Your task to perform on an android device: move a message to another label in the gmail app Image 0: 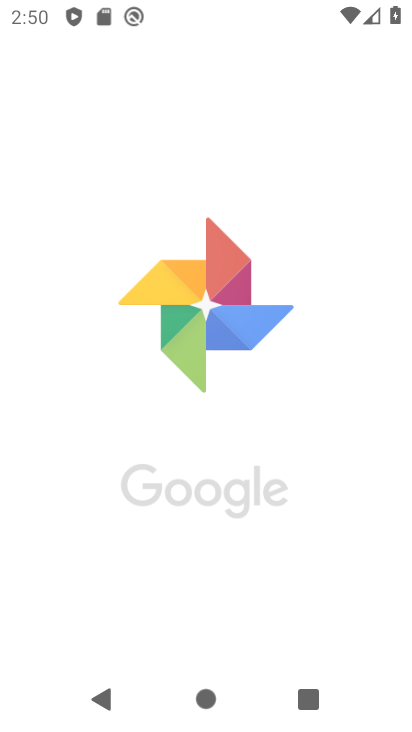
Step 0: drag from (336, 446) to (313, 2)
Your task to perform on an android device: move a message to another label in the gmail app Image 1: 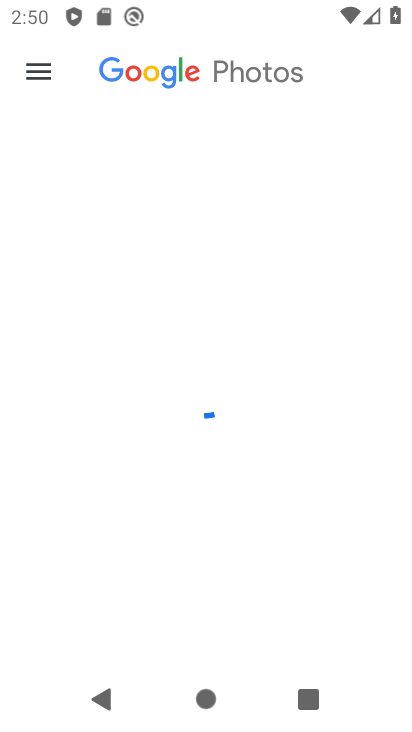
Step 1: press home button
Your task to perform on an android device: move a message to another label in the gmail app Image 2: 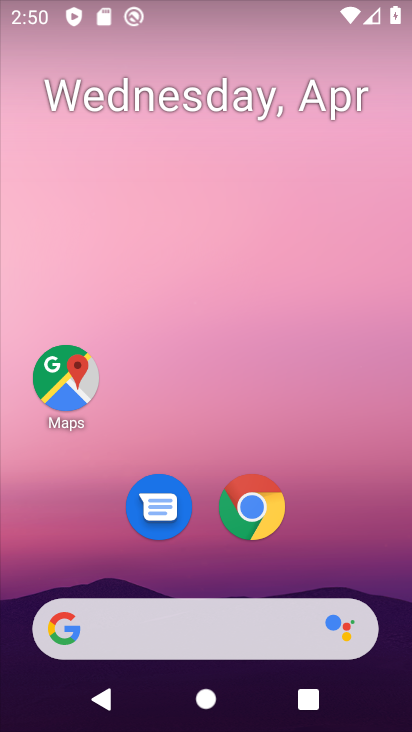
Step 2: drag from (343, 505) to (316, 80)
Your task to perform on an android device: move a message to another label in the gmail app Image 3: 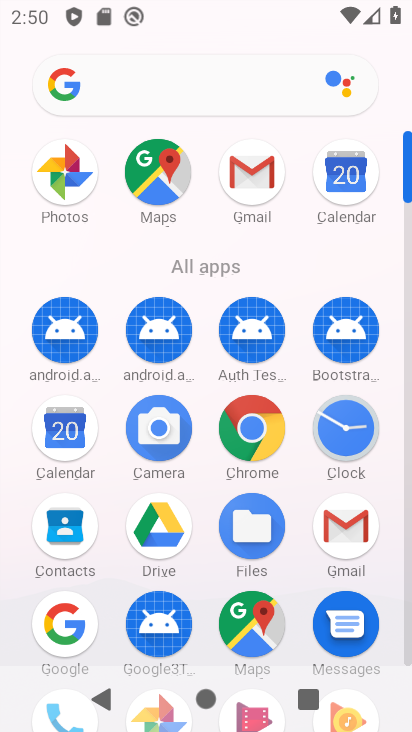
Step 3: click (248, 172)
Your task to perform on an android device: move a message to another label in the gmail app Image 4: 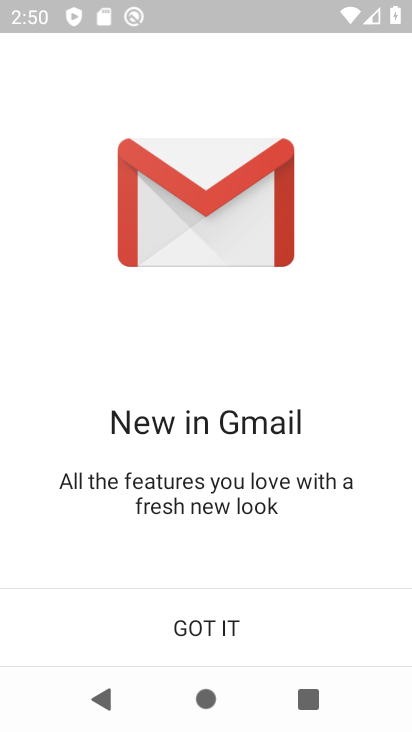
Step 4: click (220, 623)
Your task to perform on an android device: move a message to another label in the gmail app Image 5: 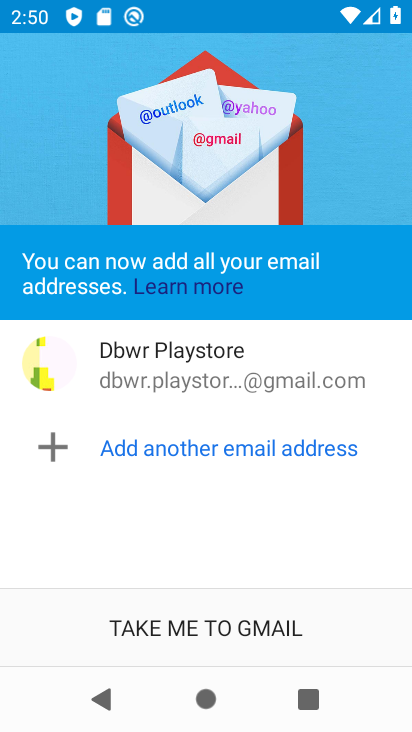
Step 5: click (220, 623)
Your task to perform on an android device: move a message to another label in the gmail app Image 6: 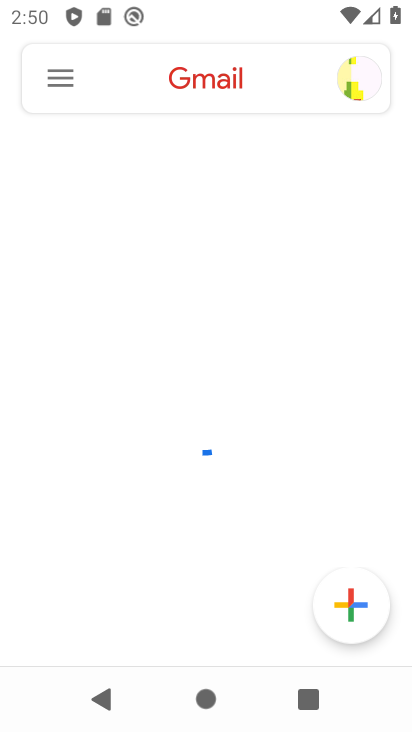
Step 6: click (57, 76)
Your task to perform on an android device: move a message to another label in the gmail app Image 7: 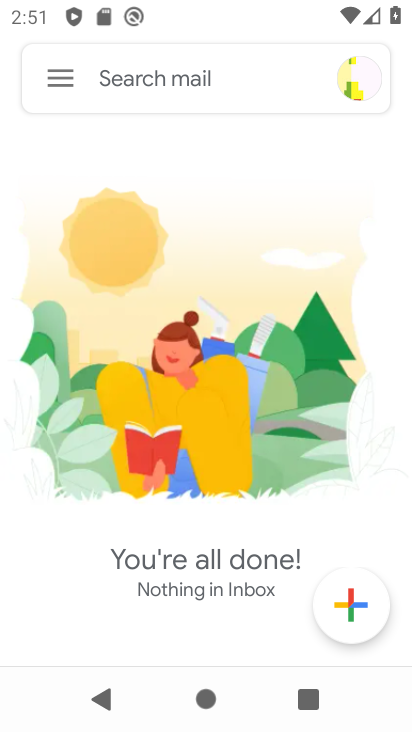
Step 7: task complete